Your task to perform on an android device: toggle airplane mode Image 0: 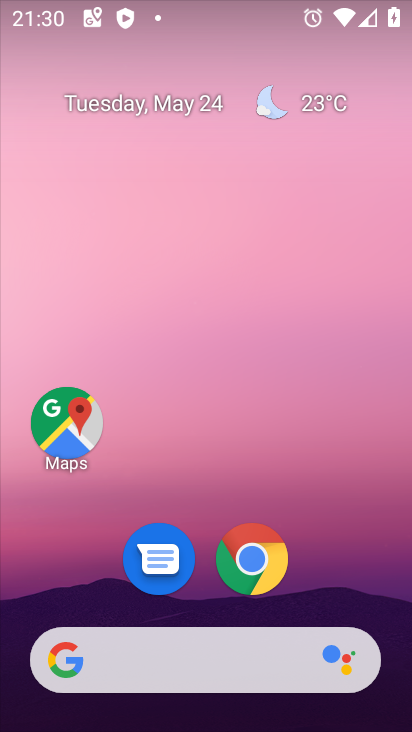
Step 0: drag from (364, 591) to (328, 152)
Your task to perform on an android device: toggle airplane mode Image 1: 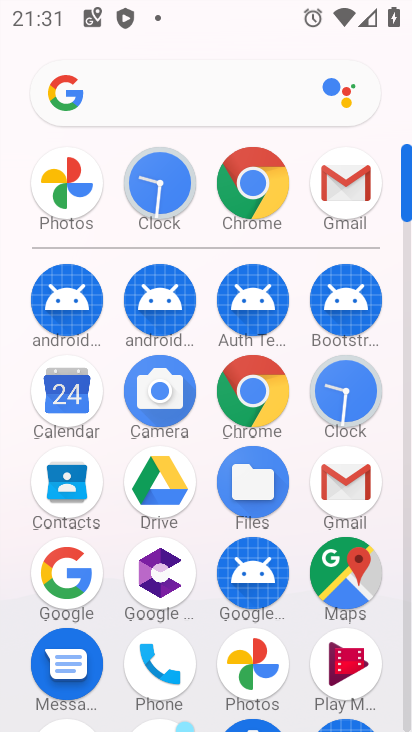
Step 1: drag from (288, 575) to (374, 277)
Your task to perform on an android device: toggle airplane mode Image 2: 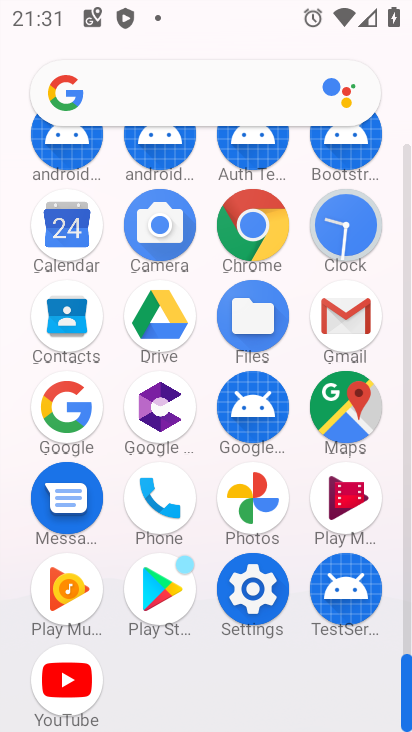
Step 2: click (258, 588)
Your task to perform on an android device: toggle airplane mode Image 3: 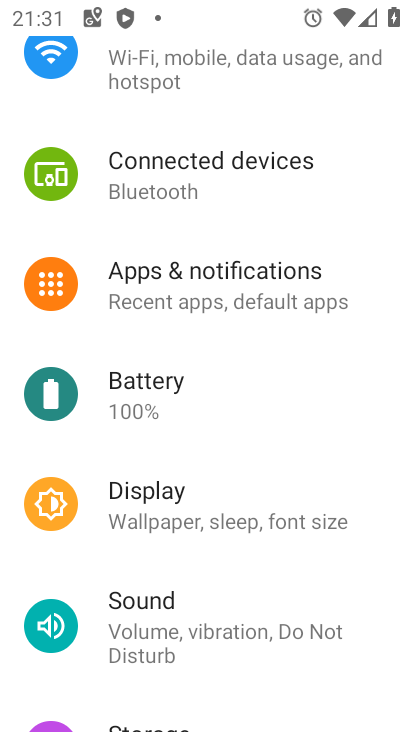
Step 3: drag from (224, 164) to (225, 568)
Your task to perform on an android device: toggle airplane mode Image 4: 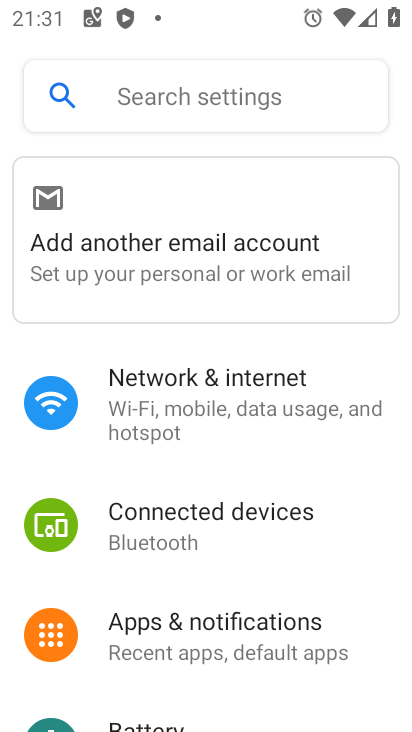
Step 4: click (232, 401)
Your task to perform on an android device: toggle airplane mode Image 5: 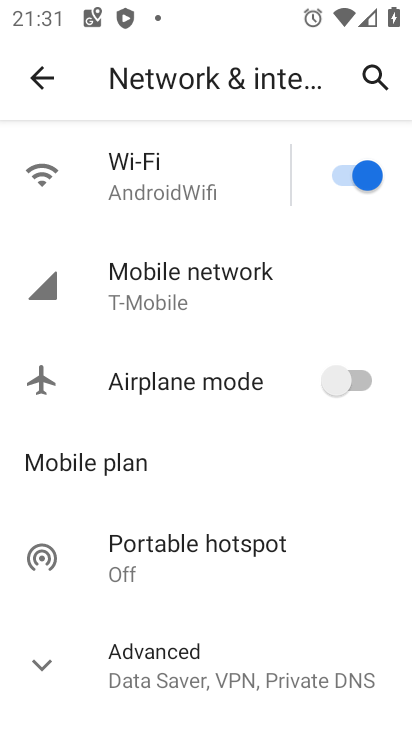
Step 5: click (323, 379)
Your task to perform on an android device: toggle airplane mode Image 6: 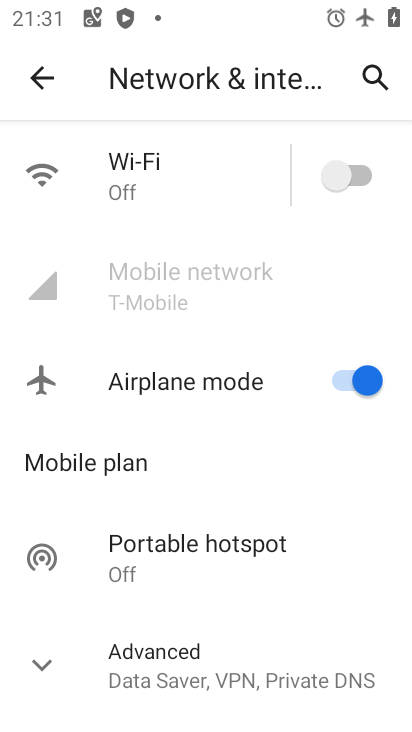
Step 6: task complete